Your task to perform on an android device: Show me the alarms in the clock app Image 0: 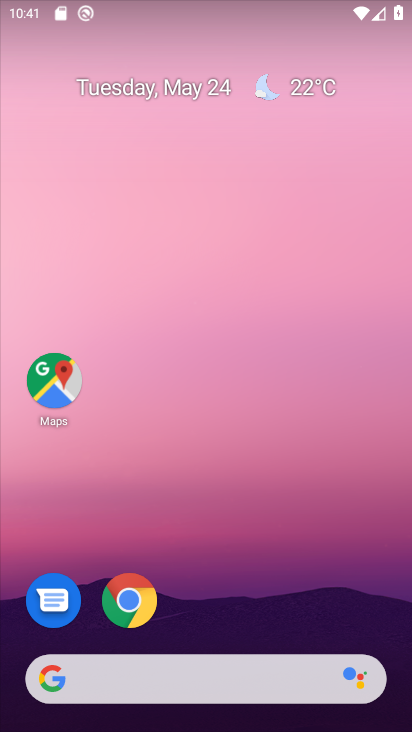
Step 0: drag from (202, 363) to (197, 171)
Your task to perform on an android device: Show me the alarms in the clock app Image 1: 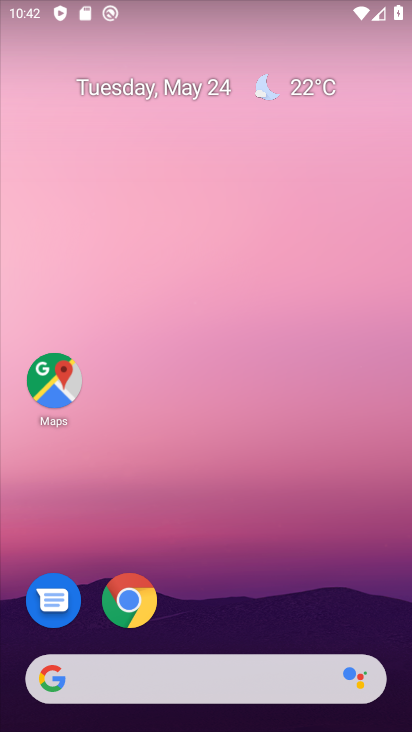
Step 1: drag from (248, 619) to (223, 96)
Your task to perform on an android device: Show me the alarms in the clock app Image 2: 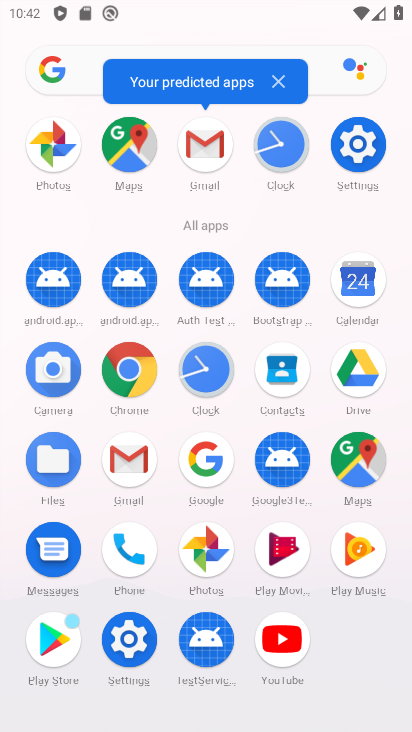
Step 2: click (289, 157)
Your task to perform on an android device: Show me the alarms in the clock app Image 3: 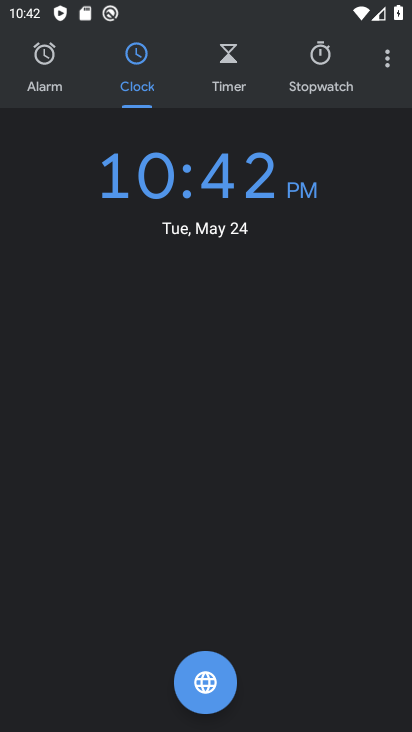
Step 3: click (42, 78)
Your task to perform on an android device: Show me the alarms in the clock app Image 4: 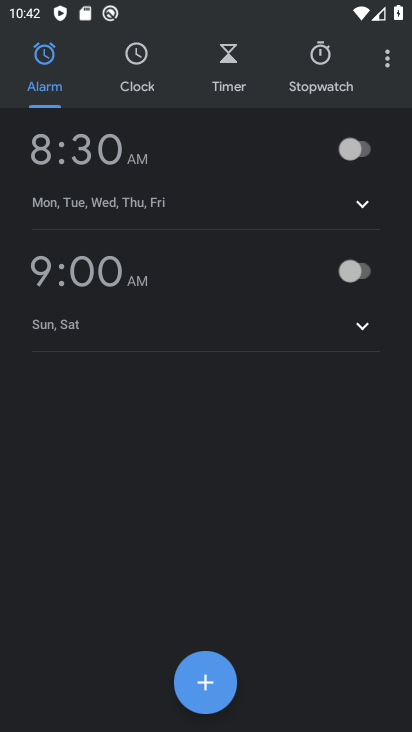
Step 4: task complete